Your task to perform on an android device: What's the weather going to be this weekend? Image 0: 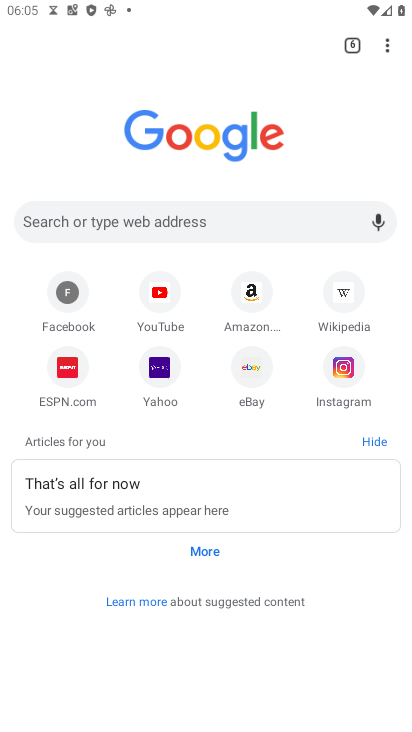
Step 0: click (216, 238)
Your task to perform on an android device: What's the weather going to be this weekend? Image 1: 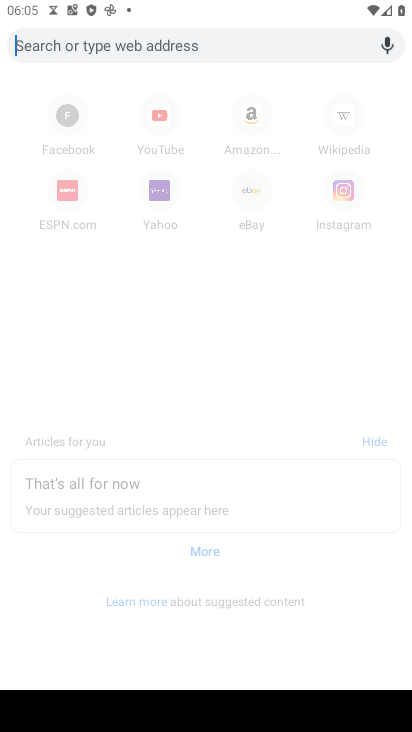
Step 1: type "weather going to be this weekend"
Your task to perform on an android device: What's the weather going to be this weekend? Image 2: 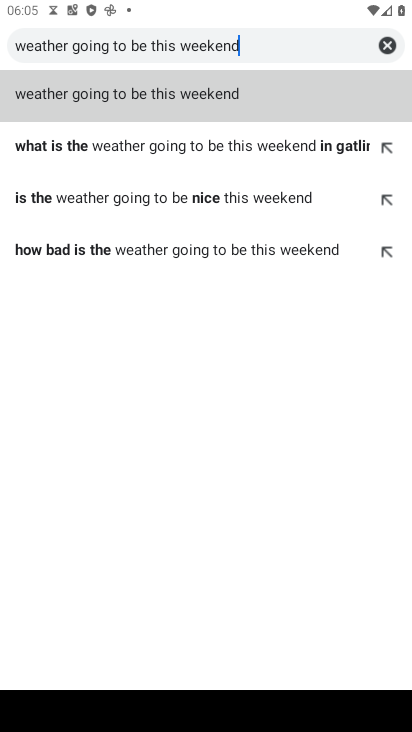
Step 2: click (346, 95)
Your task to perform on an android device: What's the weather going to be this weekend? Image 3: 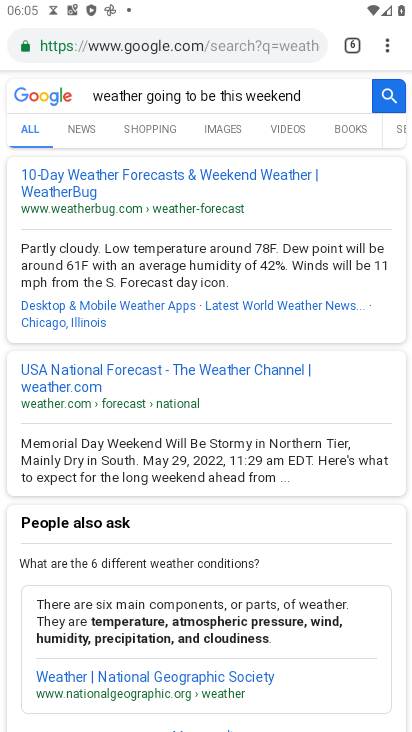
Step 3: task complete